Your task to perform on an android device: turn on priority inbox in the gmail app Image 0: 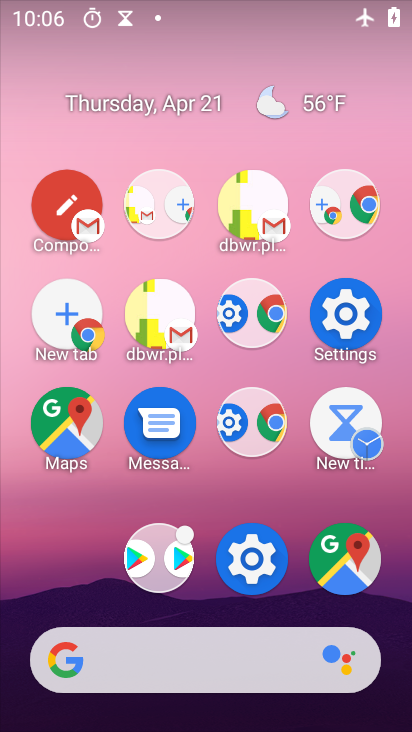
Step 0: drag from (200, 604) to (130, 124)
Your task to perform on an android device: turn on priority inbox in the gmail app Image 1: 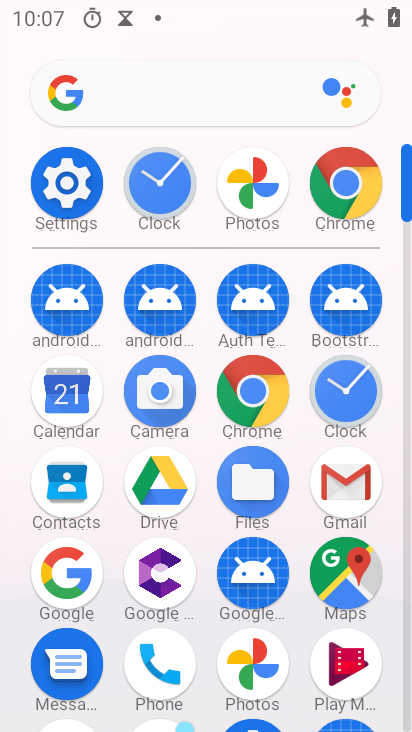
Step 1: click (341, 478)
Your task to perform on an android device: turn on priority inbox in the gmail app Image 2: 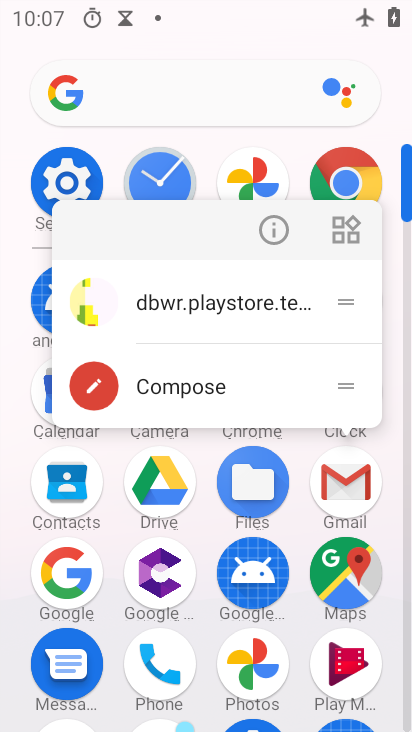
Step 2: click (235, 301)
Your task to perform on an android device: turn on priority inbox in the gmail app Image 3: 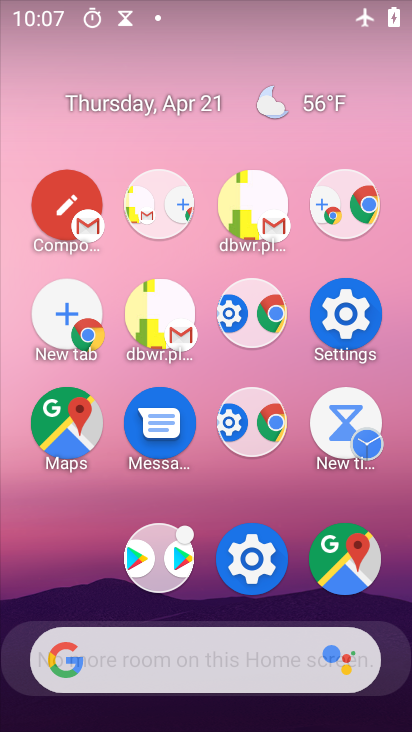
Step 3: drag from (366, 566) to (209, 106)
Your task to perform on an android device: turn on priority inbox in the gmail app Image 4: 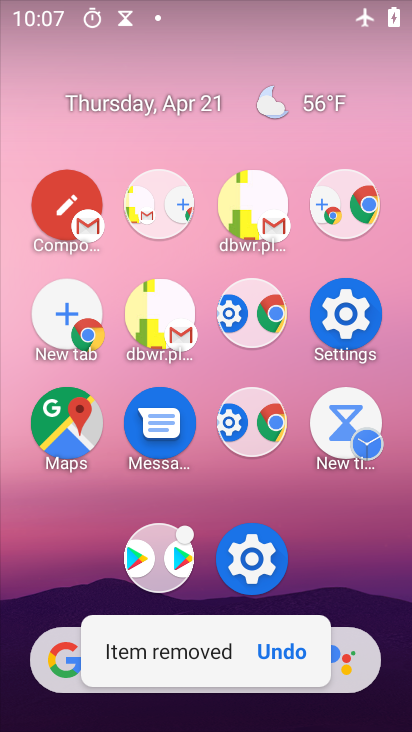
Step 4: drag from (317, 519) to (162, 299)
Your task to perform on an android device: turn on priority inbox in the gmail app Image 5: 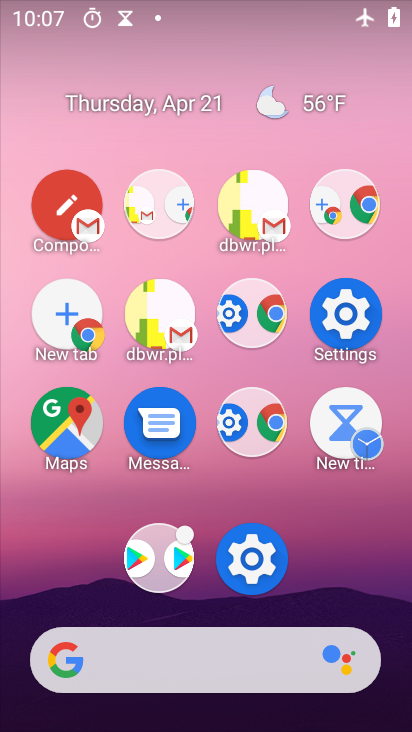
Step 5: drag from (332, 469) to (154, 83)
Your task to perform on an android device: turn on priority inbox in the gmail app Image 6: 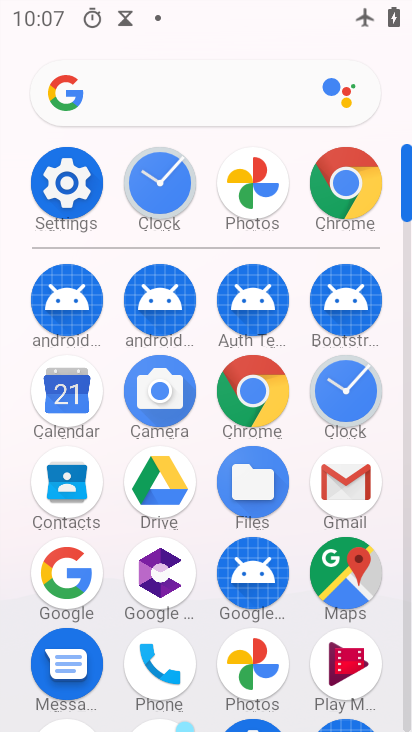
Step 6: drag from (297, 498) to (179, 30)
Your task to perform on an android device: turn on priority inbox in the gmail app Image 7: 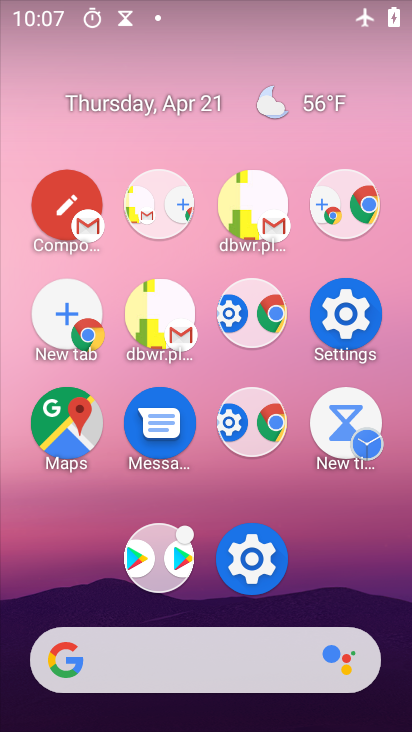
Step 7: drag from (327, 600) to (97, 102)
Your task to perform on an android device: turn on priority inbox in the gmail app Image 8: 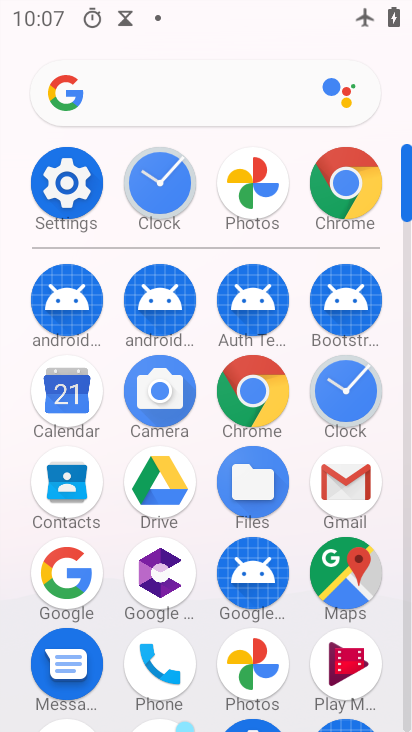
Step 8: click (345, 469)
Your task to perform on an android device: turn on priority inbox in the gmail app Image 9: 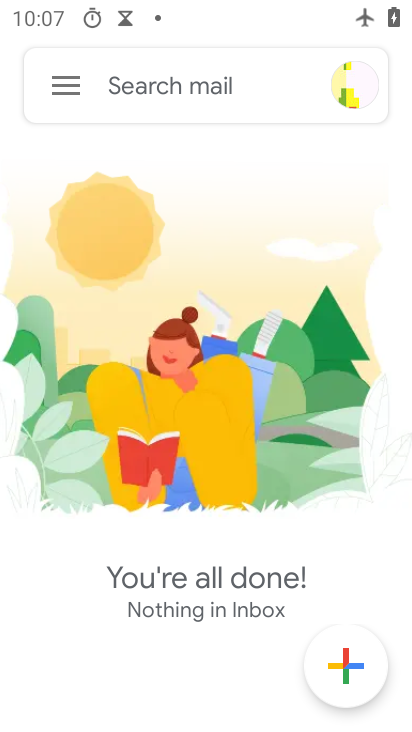
Step 9: click (65, 81)
Your task to perform on an android device: turn on priority inbox in the gmail app Image 10: 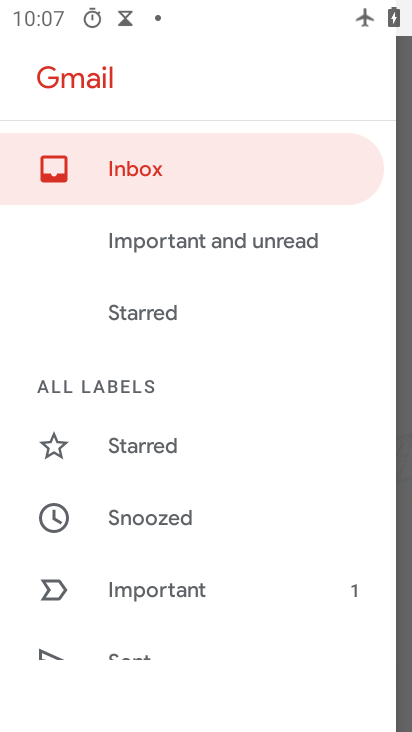
Step 10: drag from (174, 580) to (151, 223)
Your task to perform on an android device: turn on priority inbox in the gmail app Image 11: 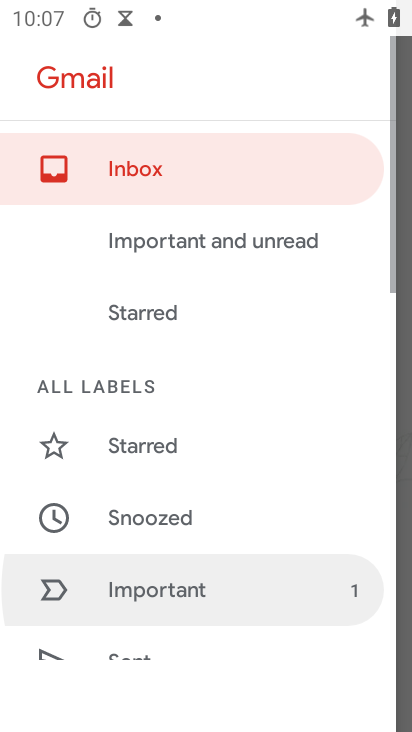
Step 11: drag from (212, 504) to (210, 75)
Your task to perform on an android device: turn on priority inbox in the gmail app Image 12: 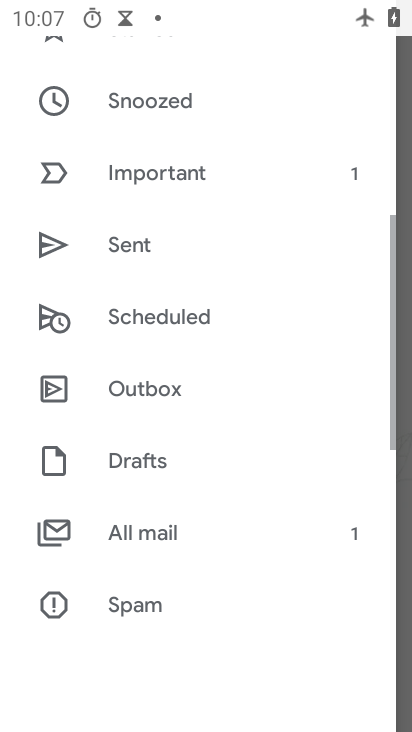
Step 12: drag from (228, 518) to (269, 54)
Your task to perform on an android device: turn on priority inbox in the gmail app Image 13: 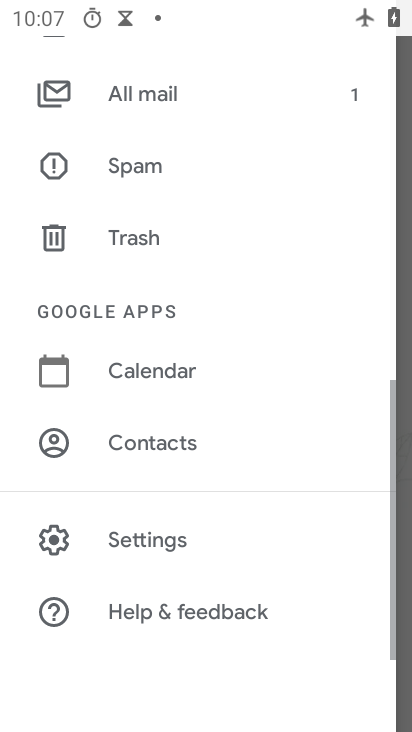
Step 13: drag from (213, 496) to (307, 91)
Your task to perform on an android device: turn on priority inbox in the gmail app Image 14: 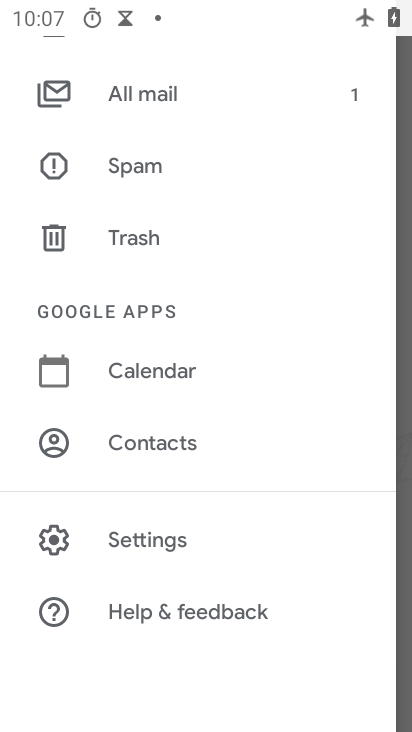
Step 14: click (137, 537)
Your task to perform on an android device: turn on priority inbox in the gmail app Image 15: 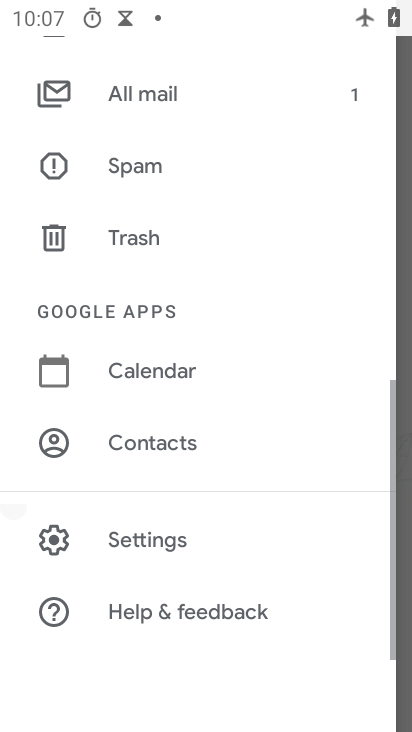
Step 15: click (137, 537)
Your task to perform on an android device: turn on priority inbox in the gmail app Image 16: 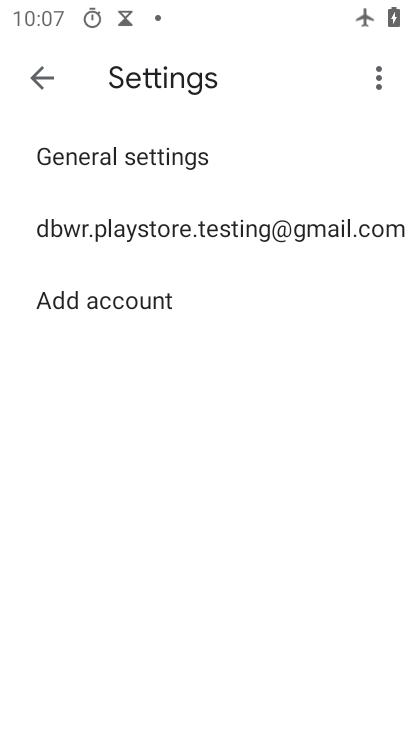
Step 16: click (191, 229)
Your task to perform on an android device: turn on priority inbox in the gmail app Image 17: 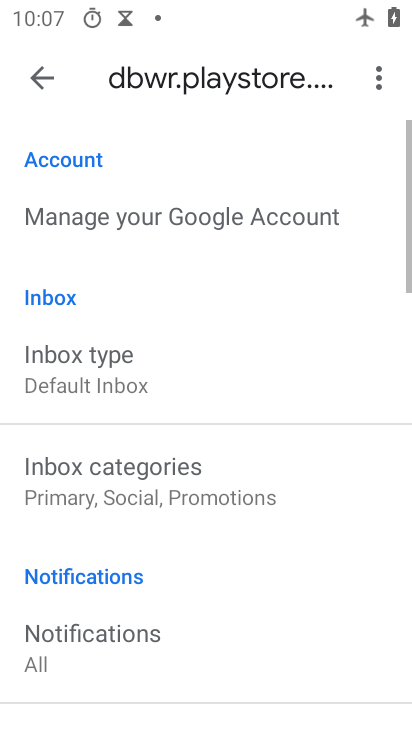
Step 17: drag from (116, 577) to (66, 227)
Your task to perform on an android device: turn on priority inbox in the gmail app Image 18: 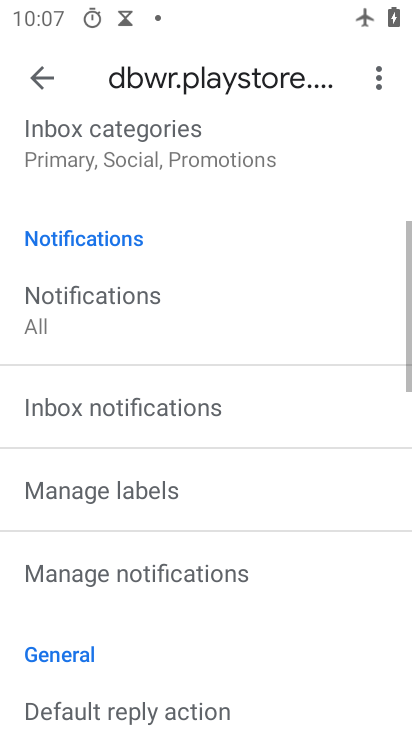
Step 18: drag from (153, 598) to (166, 183)
Your task to perform on an android device: turn on priority inbox in the gmail app Image 19: 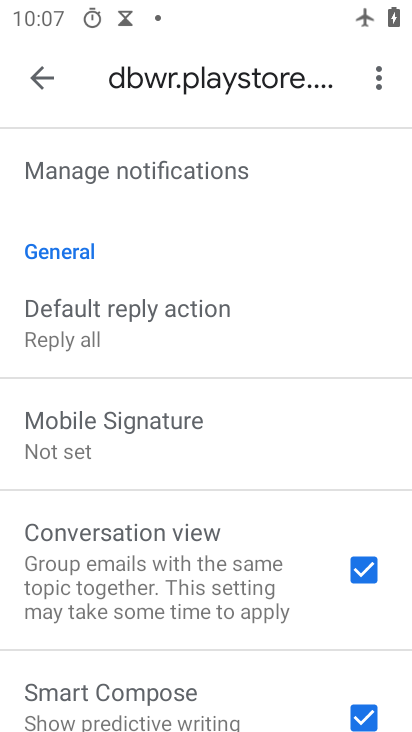
Step 19: drag from (199, 550) to (161, 186)
Your task to perform on an android device: turn on priority inbox in the gmail app Image 20: 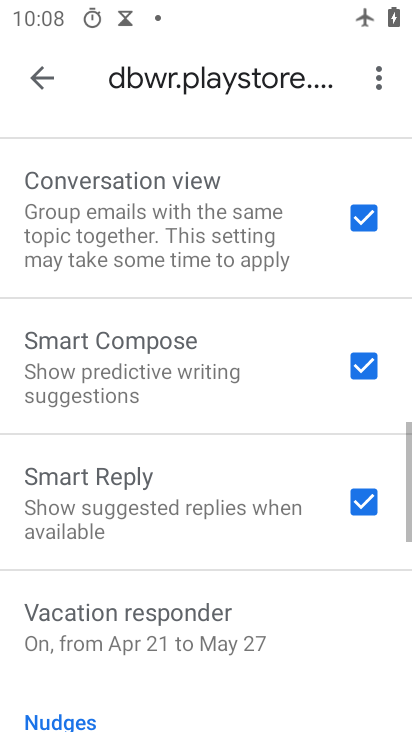
Step 20: drag from (233, 581) to (232, 268)
Your task to perform on an android device: turn on priority inbox in the gmail app Image 21: 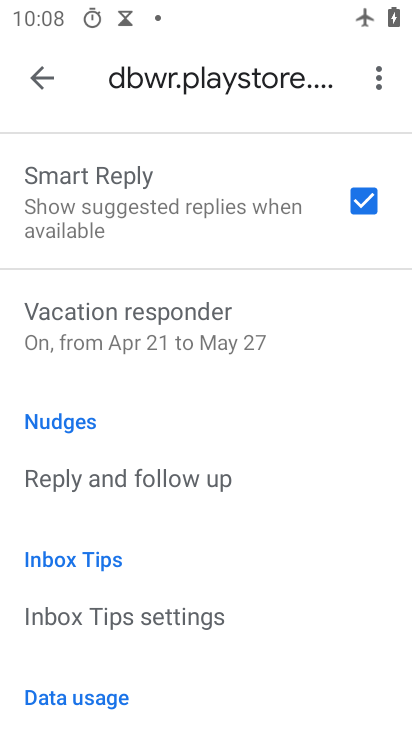
Step 21: drag from (215, 615) to (227, 262)
Your task to perform on an android device: turn on priority inbox in the gmail app Image 22: 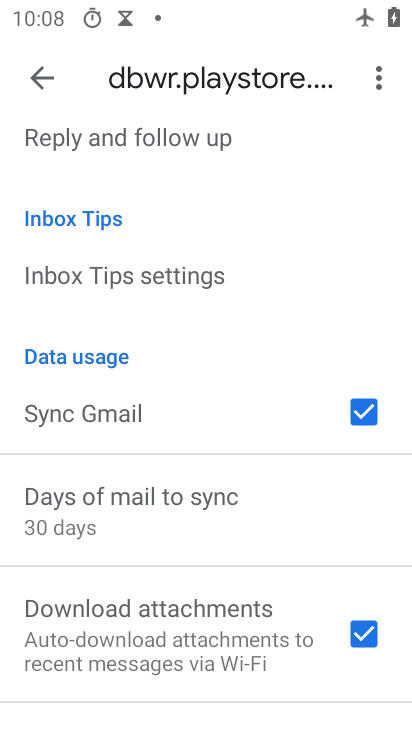
Step 22: drag from (152, 514) to (139, 190)
Your task to perform on an android device: turn on priority inbox in the gmail app Image 23: 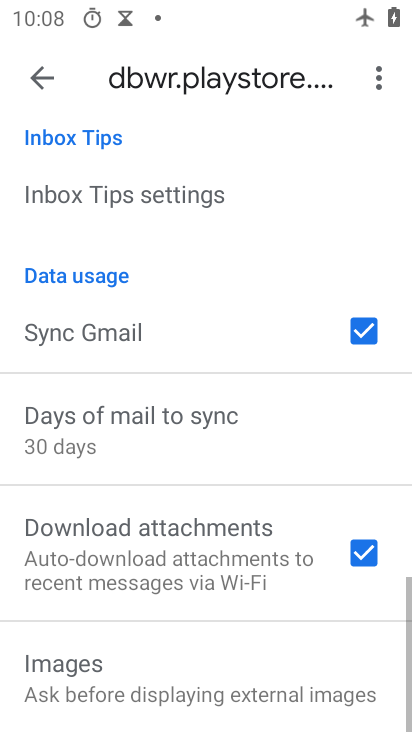
Step 23: drag from (99, 273) to (172, 626)
Your task to perform on an android device: turn on priority inbox in the gmail app Image 24: 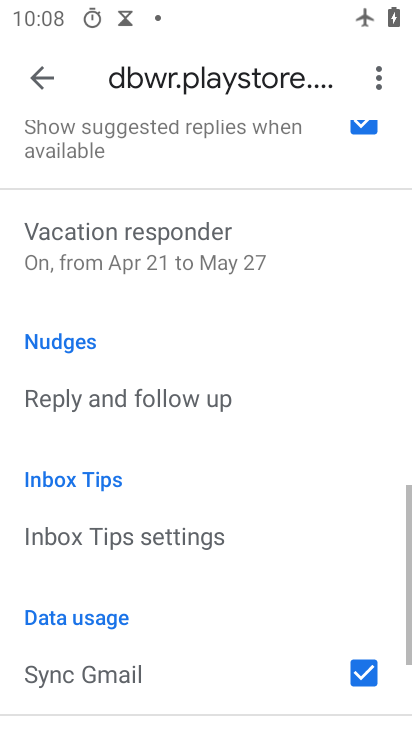
Step 24: drag from (102, 359) to (163, 636)
Your task to perform on an android device: turn on priority inbox in the gmail app Image 25: 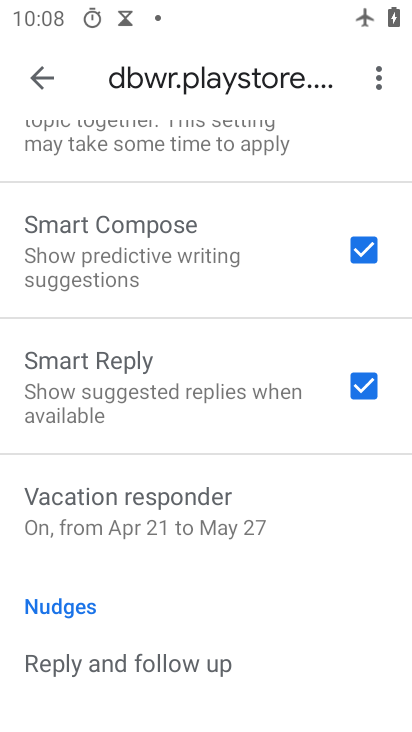
Step 25: drag from (192, 300) to (163, 512)
Your task to perform on an android device: turn on priority inbox in the gmail app Image 26: 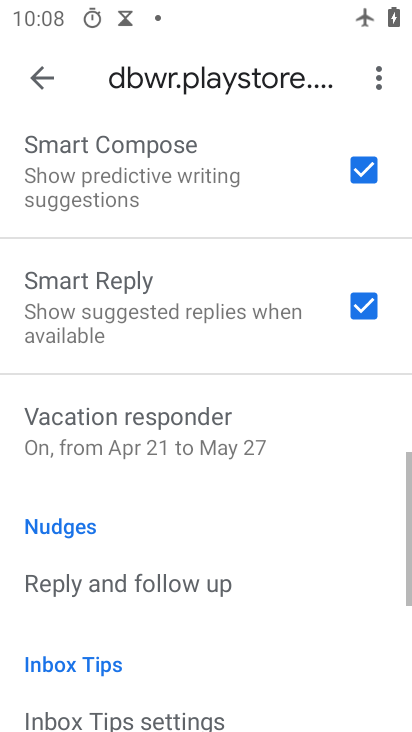
Step 26: drag from (147, 291) to (181, 541)
Your task to perform on an android device: turn on priority inbox in the gmail app Image 27: 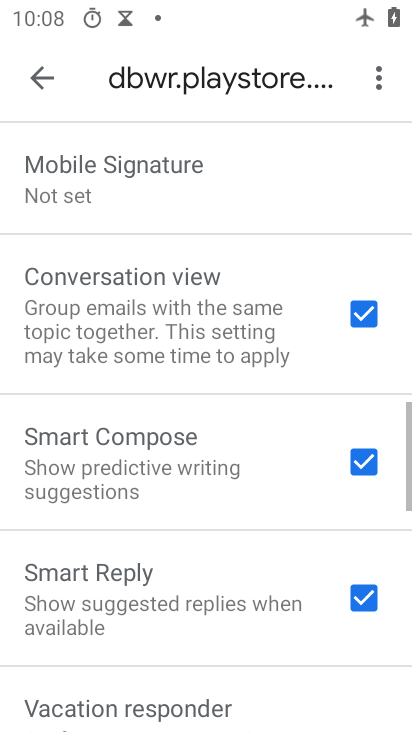
Step 27: drag from (175, 288) to (207, 519)
Your task to perform on an android device: turn on priority inbox in the gmail app Image 28: 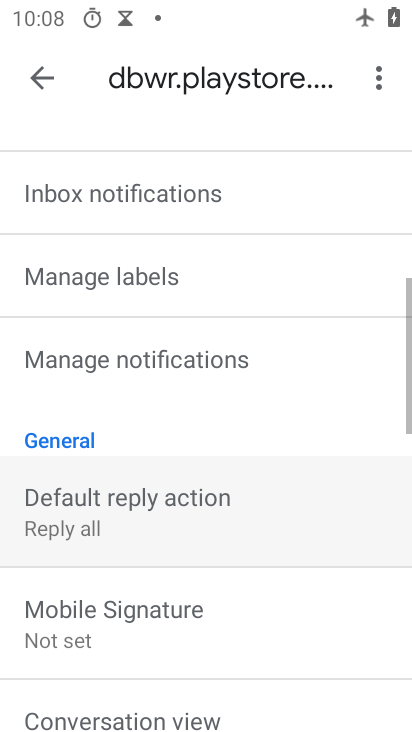
Step 28: drag from (182, 258) to (226, 507)
Your task to perform on an android device: turn on priority inbox in the gmail app Image 29: 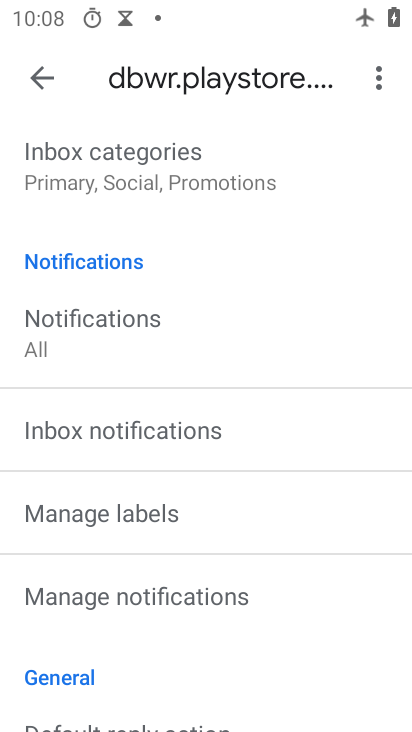
Step 29: drag from (127, 244) to (179, 508)
Your task to perform on an android device: turn on priority inbox in the gmail app Image 30: 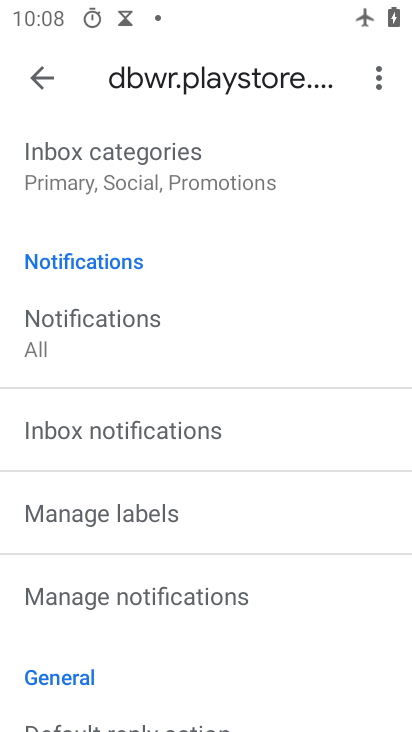
Step 30: drag from (103, 188) to (147, 530)
Your task to perform on an android device: turn on priority inbox in the gmail app Image 31: 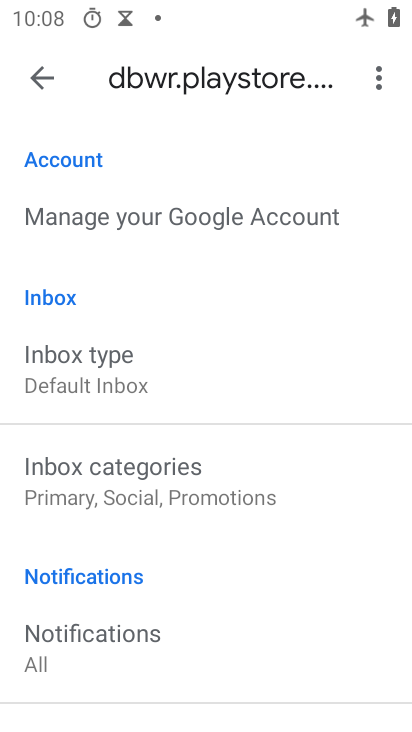
Step 31: click (59, 372)
Your task to perform on an android device: turn on priority inbox in the gmail app Image 32: 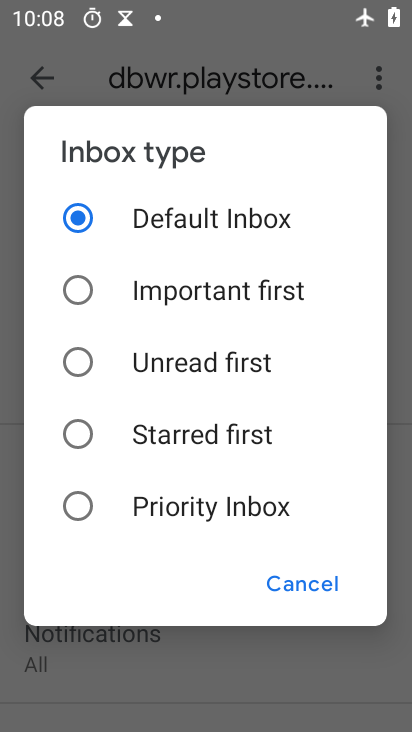
Step 32: click (71, 500)
Your task to perform on an android device: turn on priority inbox in the gmail app Image 33: 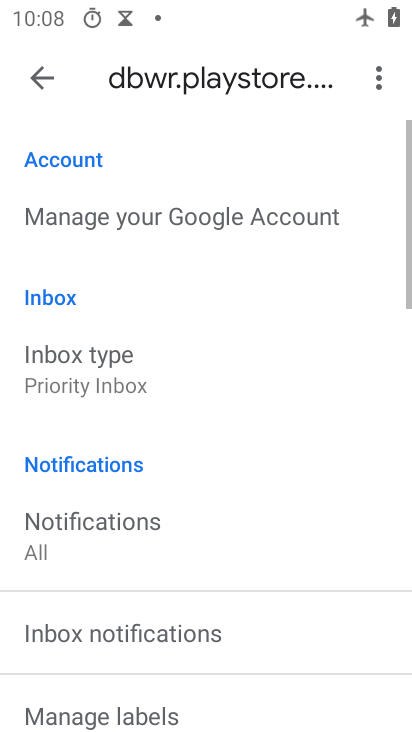
Step 33: click (82, 508)
Your task to perform on an android device: turn on priority inbox in the gmail app Image 34: 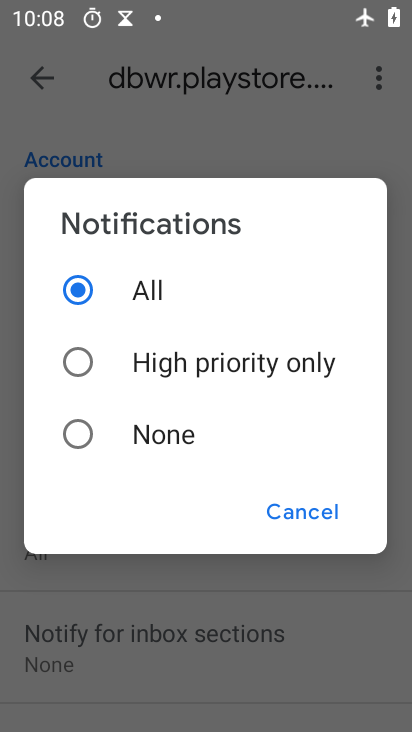
Step 34: click (315, 508)
Your task to perform on an android device: turn on priority inbox in the gmail app Image 35: 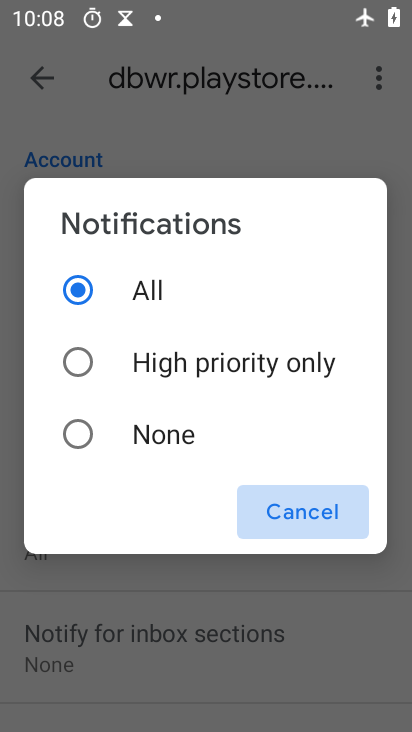
Step 35: task complete